Your task to perform on an android device: Open the stopwatch Image 0: 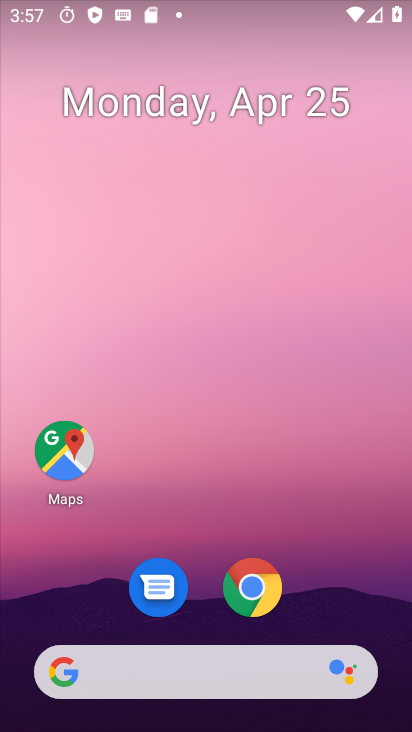
Step 0: drag from (346, 569) to (286, 91)
Your task to perform on an android device: Open the stopwatch Image 1: 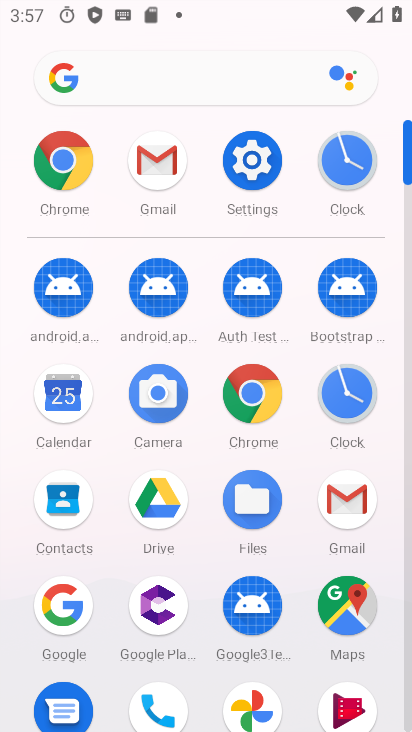
Step 1: click (343, 173)
Your task to perform on an android device: Open the stopwatch Image 2: 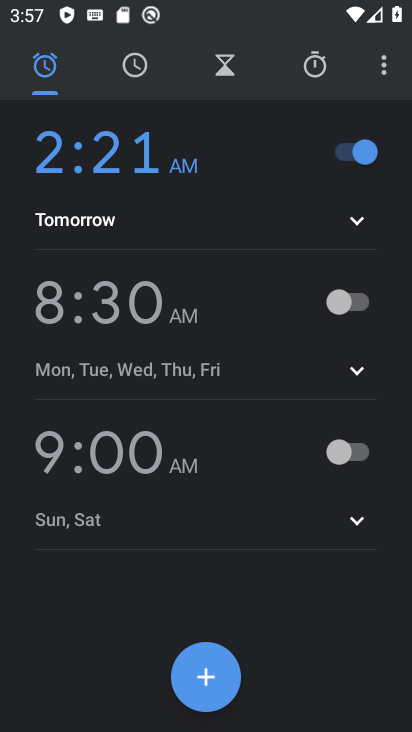
Step 2: click (317, 70)
Your task to perform on an android device: Open the stopwatch Image 3: 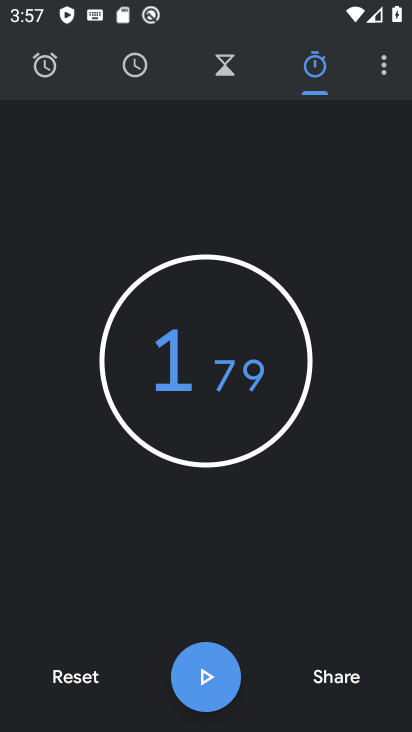
Step 3: task complete